Your task to perform on an android device: toggle javascript in the chrome app Image 0: 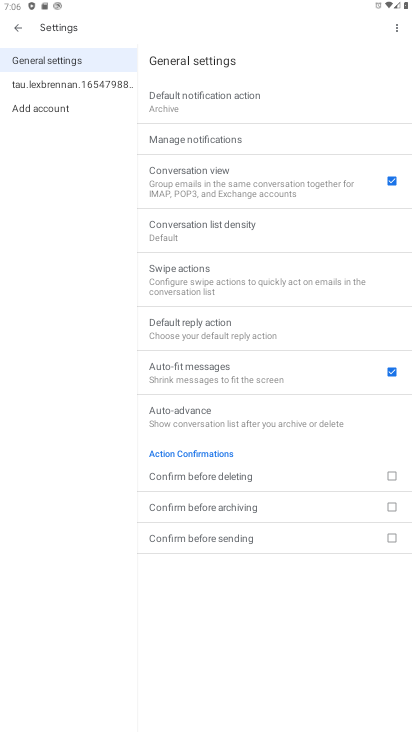
Step 0: press home button
Your task to perform on an android device: toggle javascript in the chrome app Image 1: 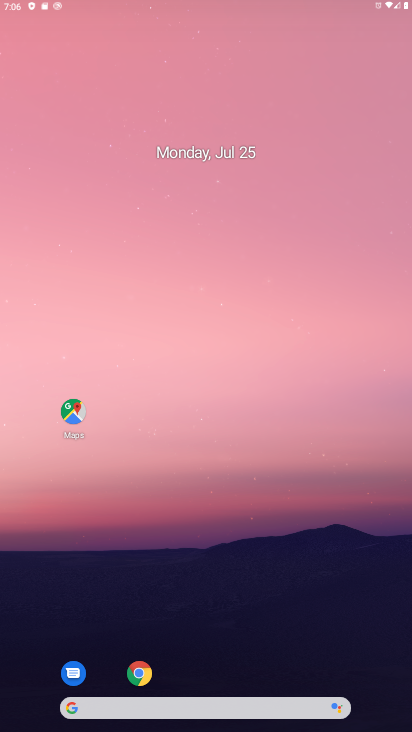
Step 1: drag from (313, 700) to (135, 23)
Your task to perform on an android device: toggle javascript in the chrome app Image 2: 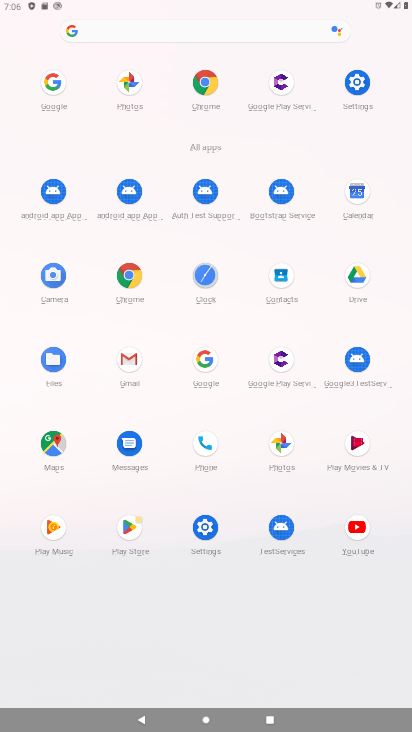
Step 2: click (131, 272)
Your task to perform on an android device: toggle javascript in the chrome app Image 3: 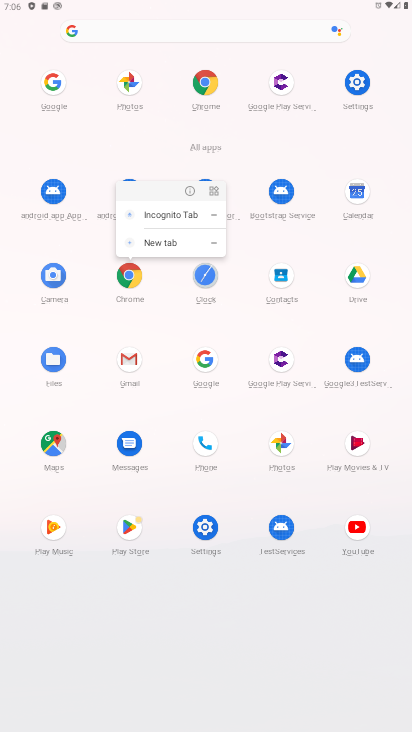
Step 3: click (145, 273)
Your task to perform on an android device: toggle javascript in the chrome app Image 4: 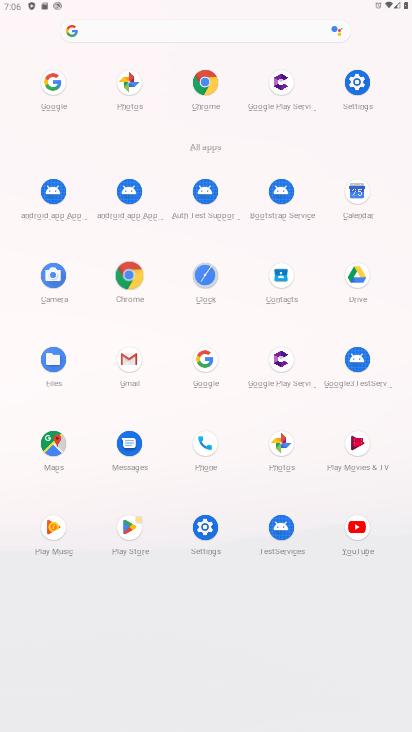
Step 4: click (145, 273)
Your task to perform on an android device: toggle javascript in the chrome app Image 5: 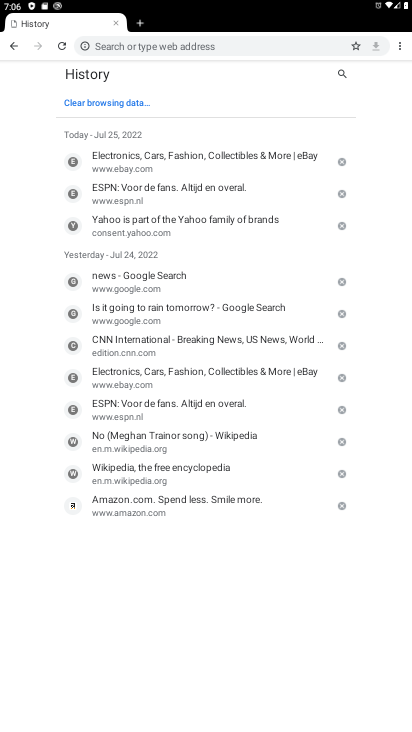
Step 5: click (402, 49)
Your task to perform on an android device: toggle javascript in the chrome app Image 6: 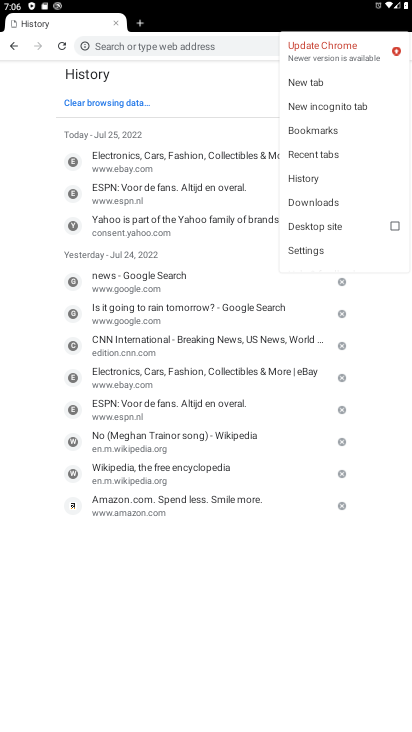
Step 6: click (304, 243)
Your task to perform on an android device: toggle javascript in the chrome app Image 7: 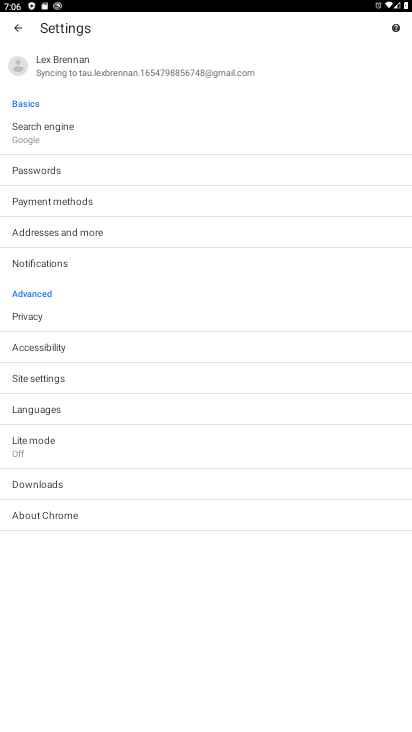
Step 7: click (74, 371)
Your task to perform on an android device: toggle javascript in the chrome app Image 8: 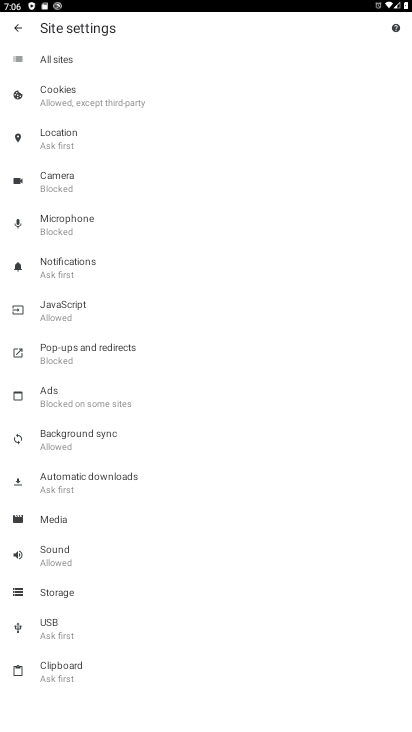
Step 8: click (89, 314)
Your task to perform on an android device: toggle javascript in the chrome app Image 9: 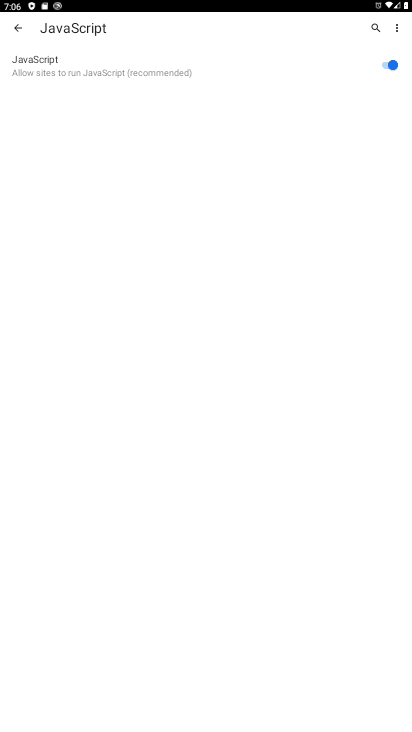
Step 9: click (380, 62)
Your task to perform on an android device: toggle javascript in the chrome app Image 10: 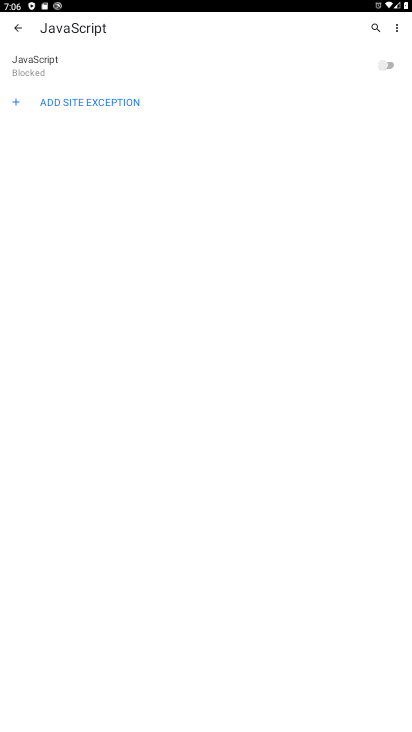
Step 10: task complete